Your task to perform on an android device: refresh tabs in the chrome app Image 0: 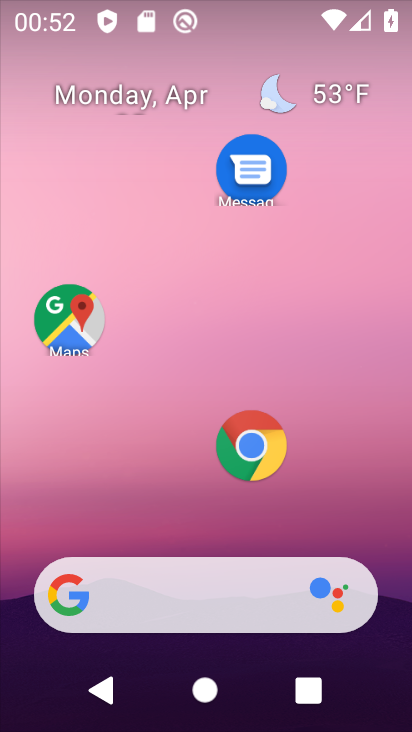
Step 0: click (264, 455)
Your task to perform on an android device: refresh tabs in the chrome app Image 1: 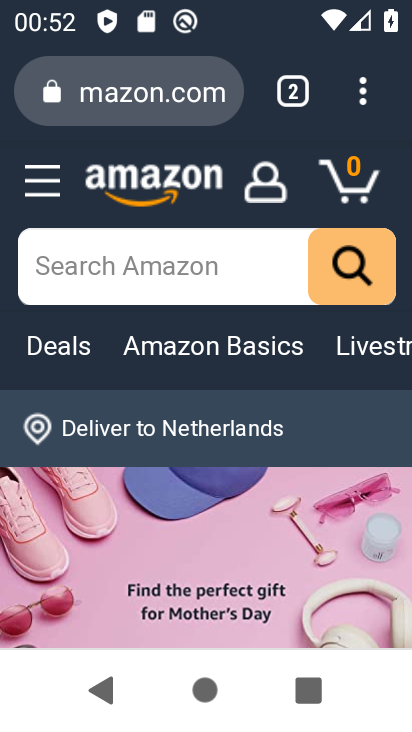
Step 1: click (361, 102)
Your task to perform on an android device: refresh tabs in the chrome app Image 2: 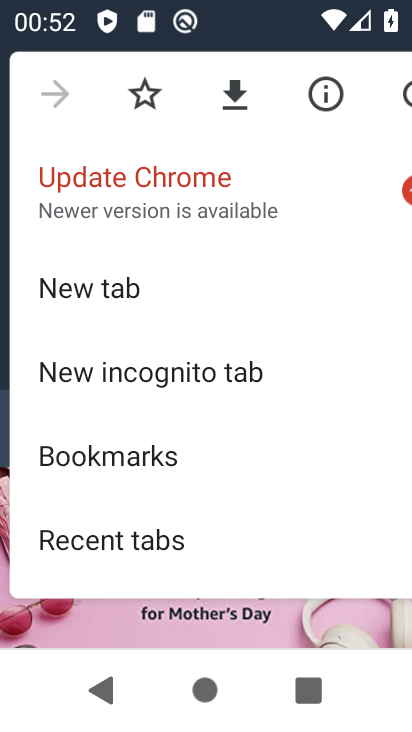
Step 2: drag from (383, 93) to (77, 87)
Your task to perform on an android device: refresh tabs in the chrome app Image 3: 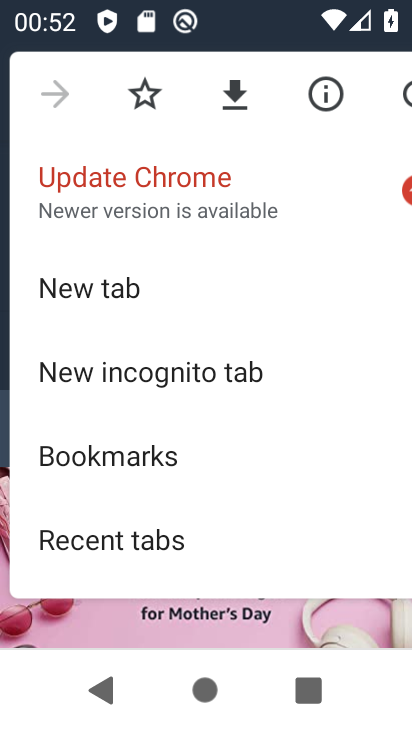
Step 3: click (401, 88)
Your task to perform on an android device: refresh tabs in the chrome app Image 4: 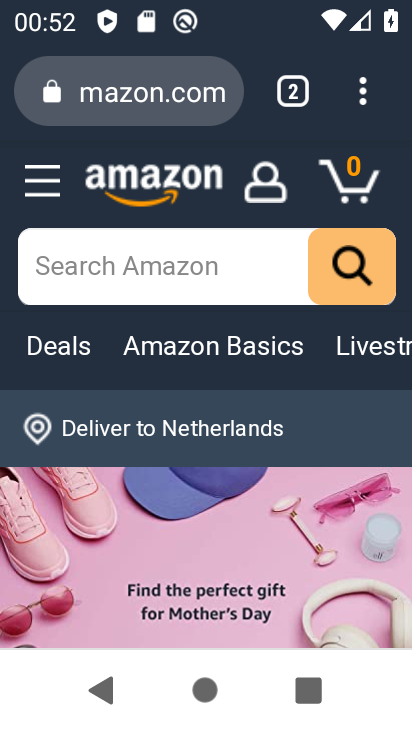
Step 4: task complete